Your task to perform on an android device: Open network settings Image 0: 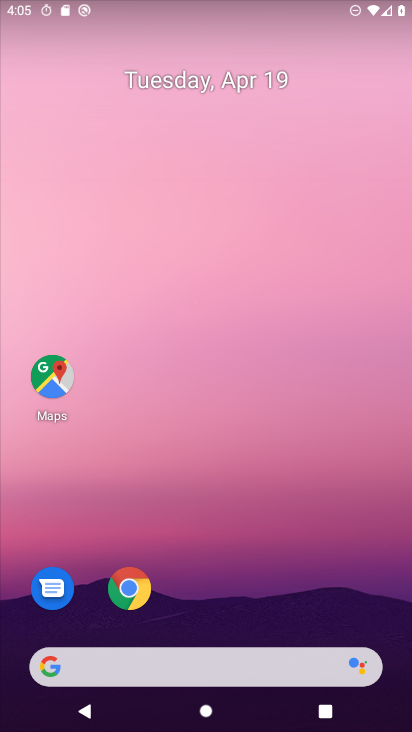
Step 0: drag from (246, 306) to (256, 154)
Your task to perform on an android device: Open network settings Image 1: 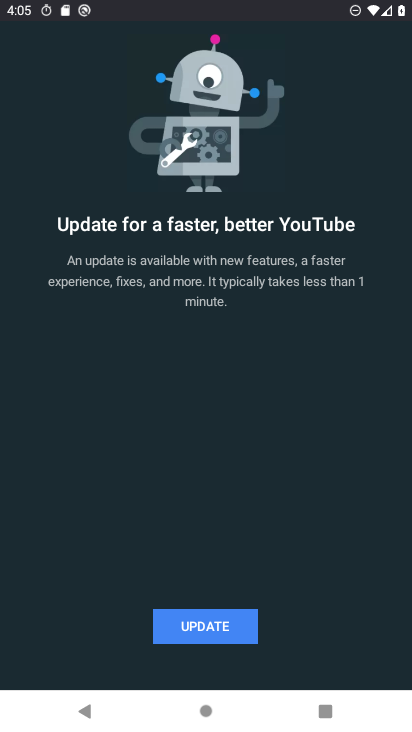
Step 1: press home button
Your task to perform on an android device: Open network settings Image 2: 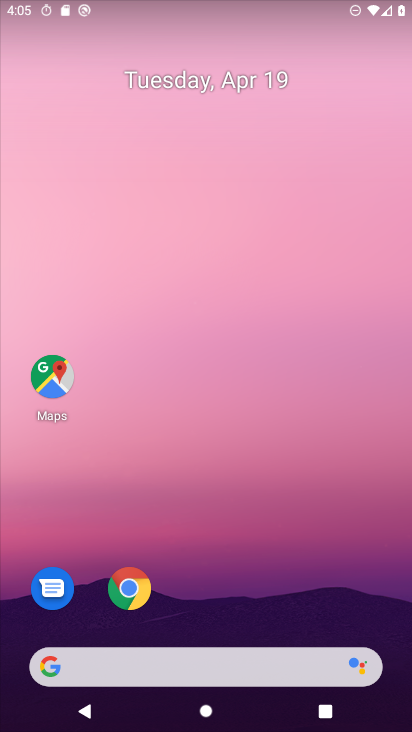
Step 2: drag from (186, 604) to (280, 115)
Your task to perform on an android device: Open network settings Image 3: 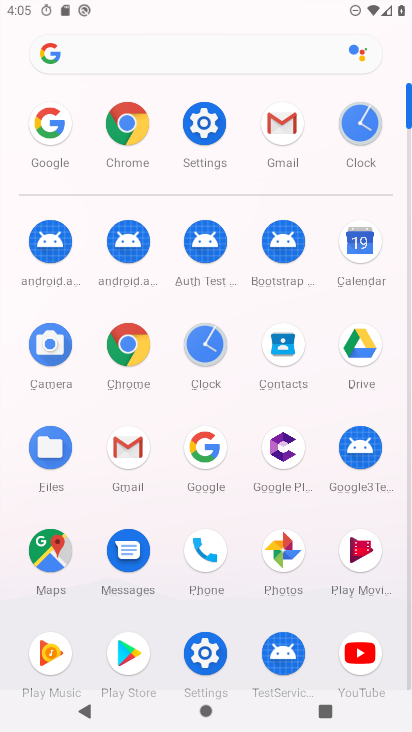
Step 3: click (202, 124)
Your task to perform on an android device: Open network settings Image 4: 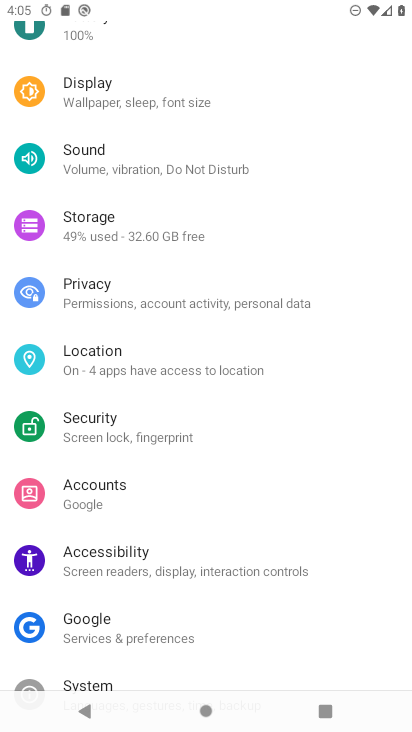
Step 4: drag from (220, 130) to (194, 549)
Your task to perform on an android device: Open network settings Image 5: 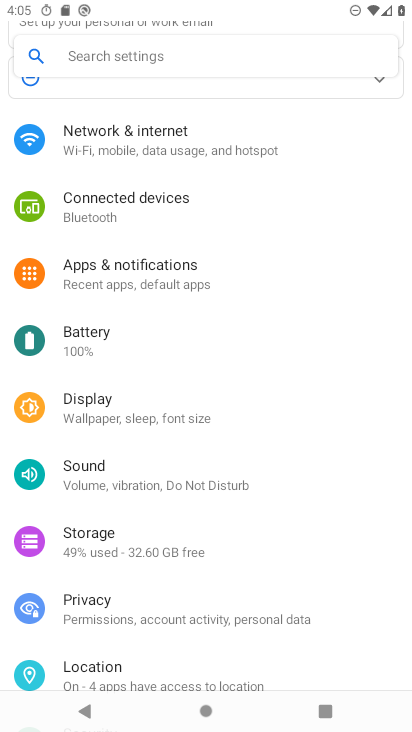
Step 5: click (218, 149)
Your task to perform on an android device: Open network settings Image 6: 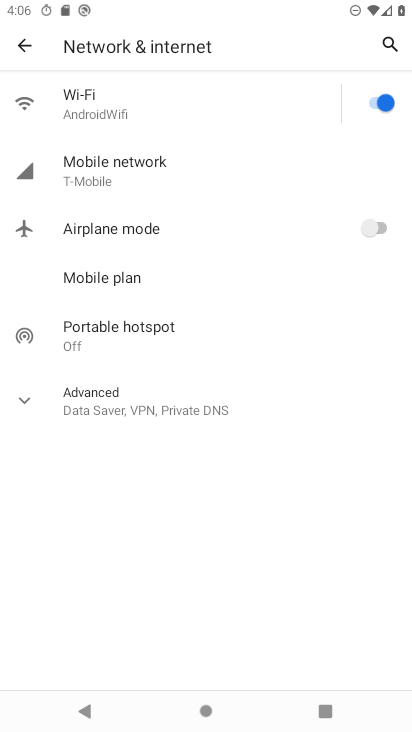
Step 6: click (166, 163)
Your task to perform on an android device: Open network settings Image 7: 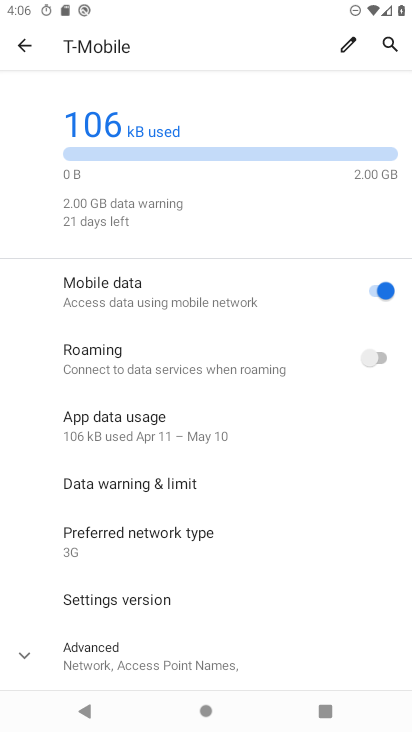
Step 7: click (182, 659)
Your task to perform on an android device: Open network settings Image 8: 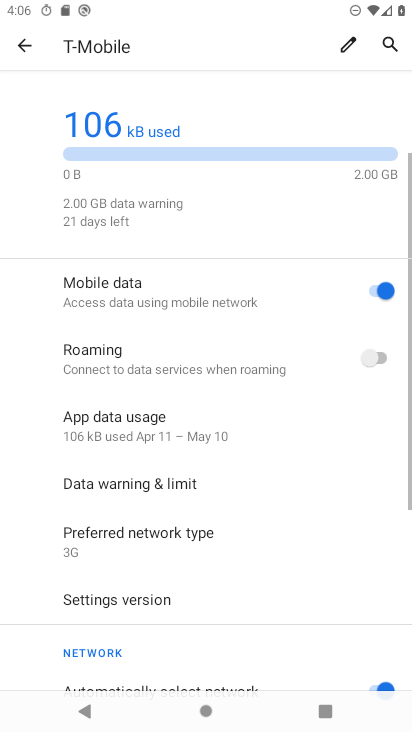
Step 8: task complete